Your task to perform on an android device: change the clock display to digital Image 0: 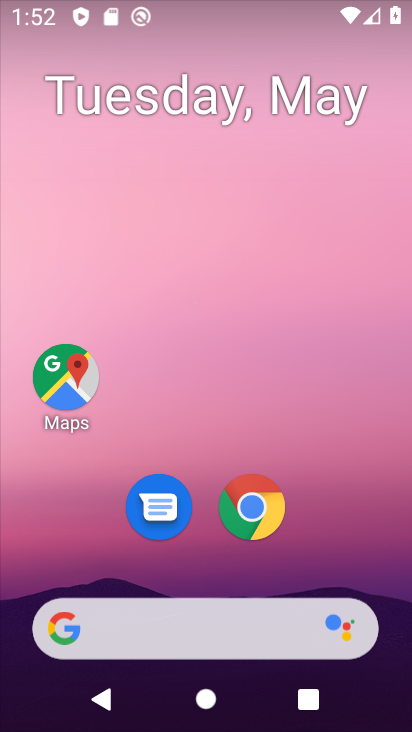
Step 0: drag from (140, 584) to (299, 6)
Your task to perform on an android device: change the clock display to digital Image 1: 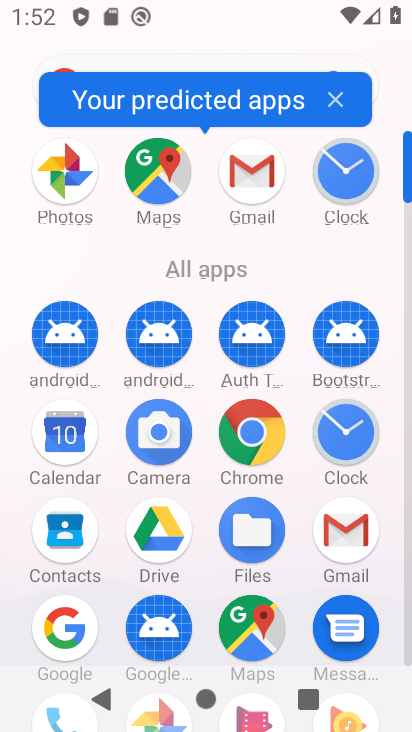
Step 1: click (351, 436)
Your task to perform on an android device: change the clock display to digital Image 2: 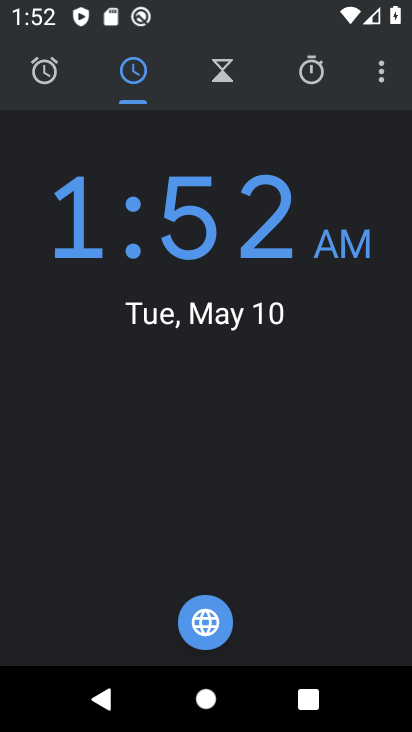
Step 2: click (389, 89)
Your task to perform on an android device: change the clock display to digital Image 3: 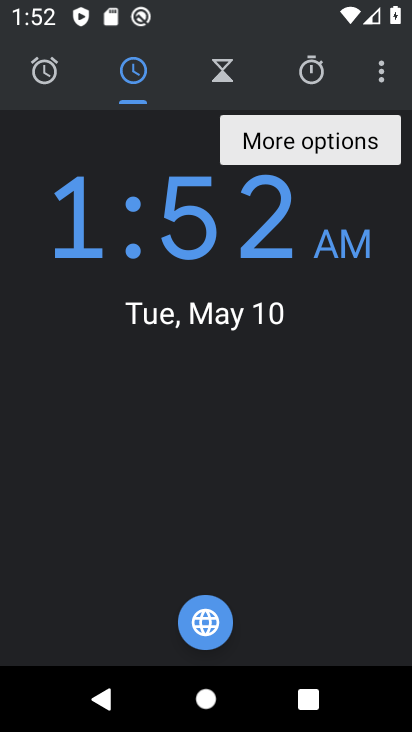
Step 3: click (382, 80)
Your task to perform on an android device: change the clock display to digital Image 4: 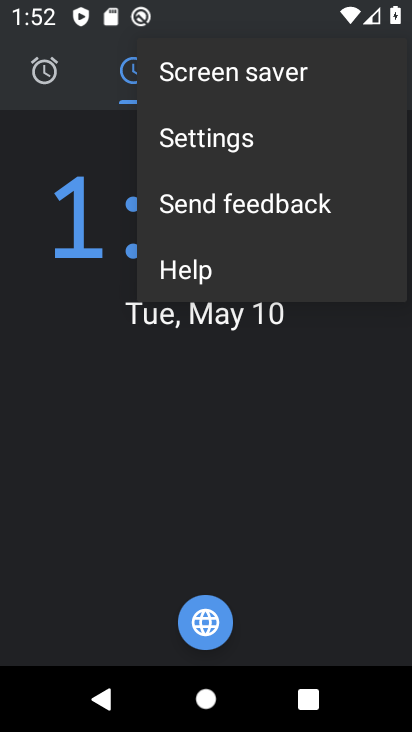
Step 4: click (355, 128)
Your task to perform on an android device: change the clock display to digital Image 5: 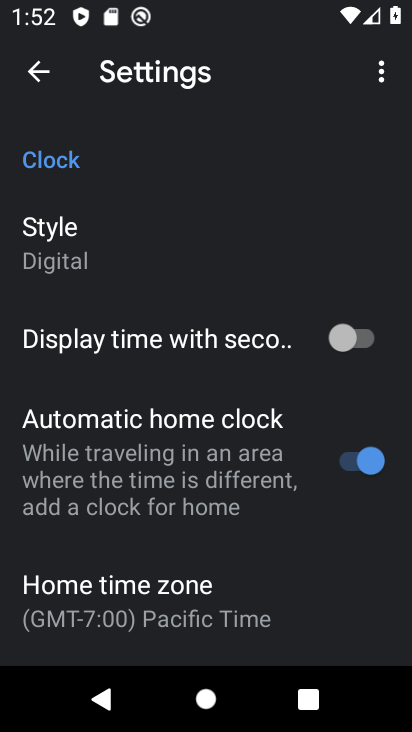
Step 5: task complete